Your task to perform on an android device: turn off notifications settings in the gmail app Image 0: 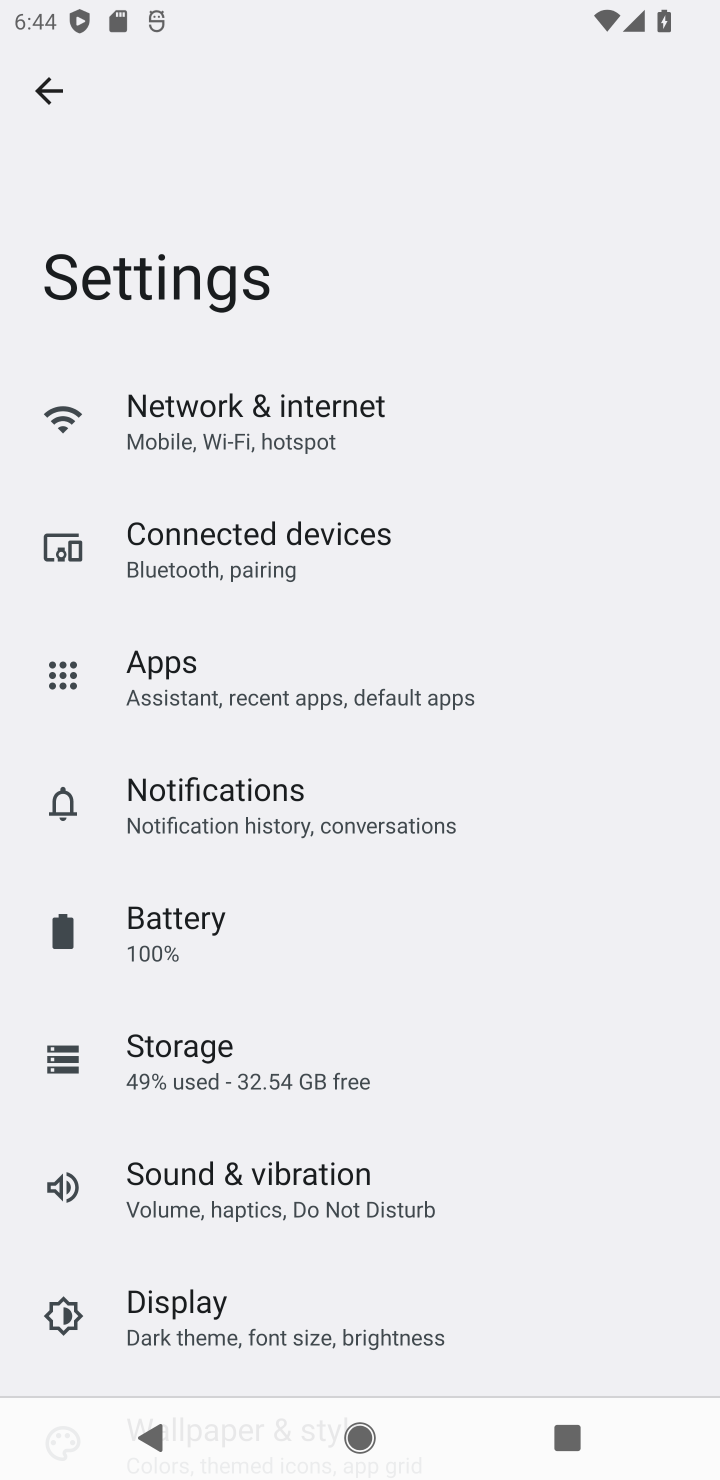
Step 0: press home button
Your task to perform on an android device: turn off notifications settings in the gmail app Image 1: 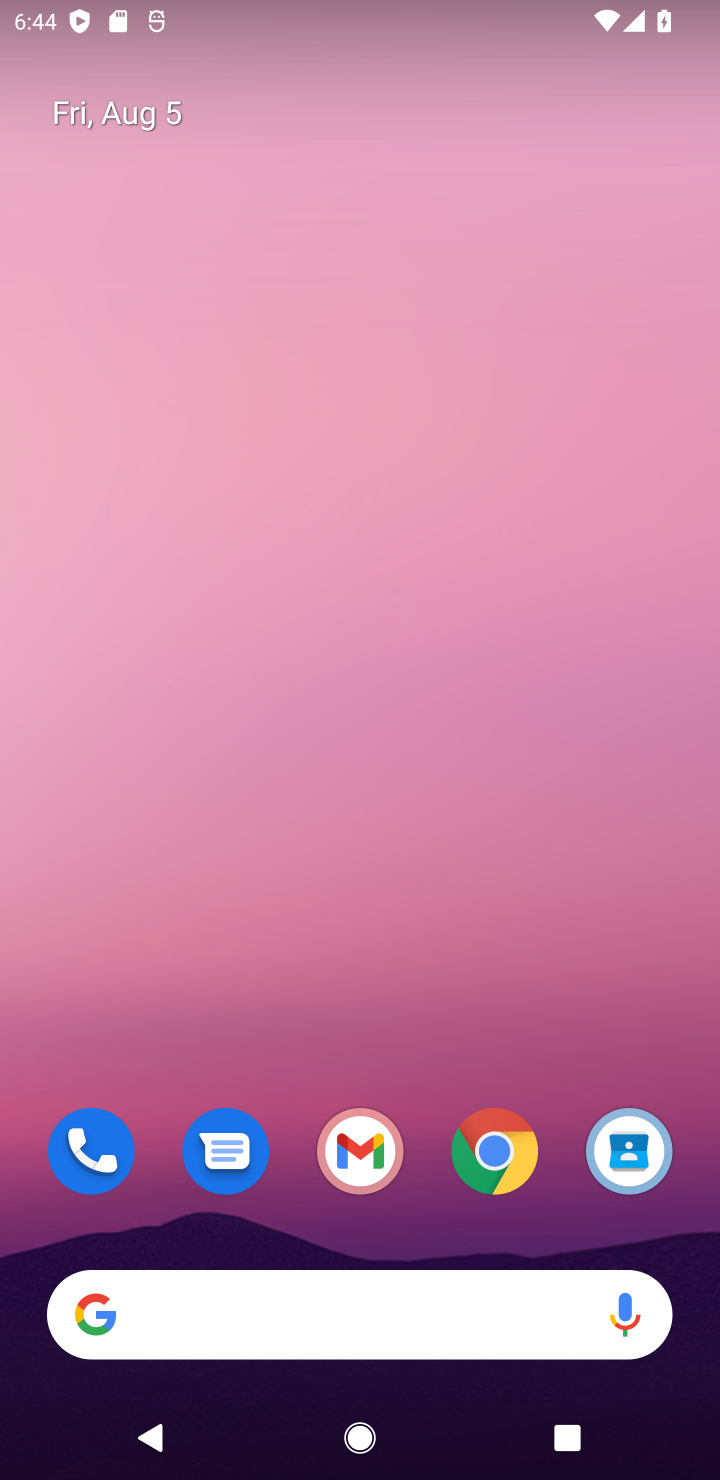
Step 1: click (370, 1186)
Your task to perform on an android device: turn off notifications settings in the gmail app Image 2: 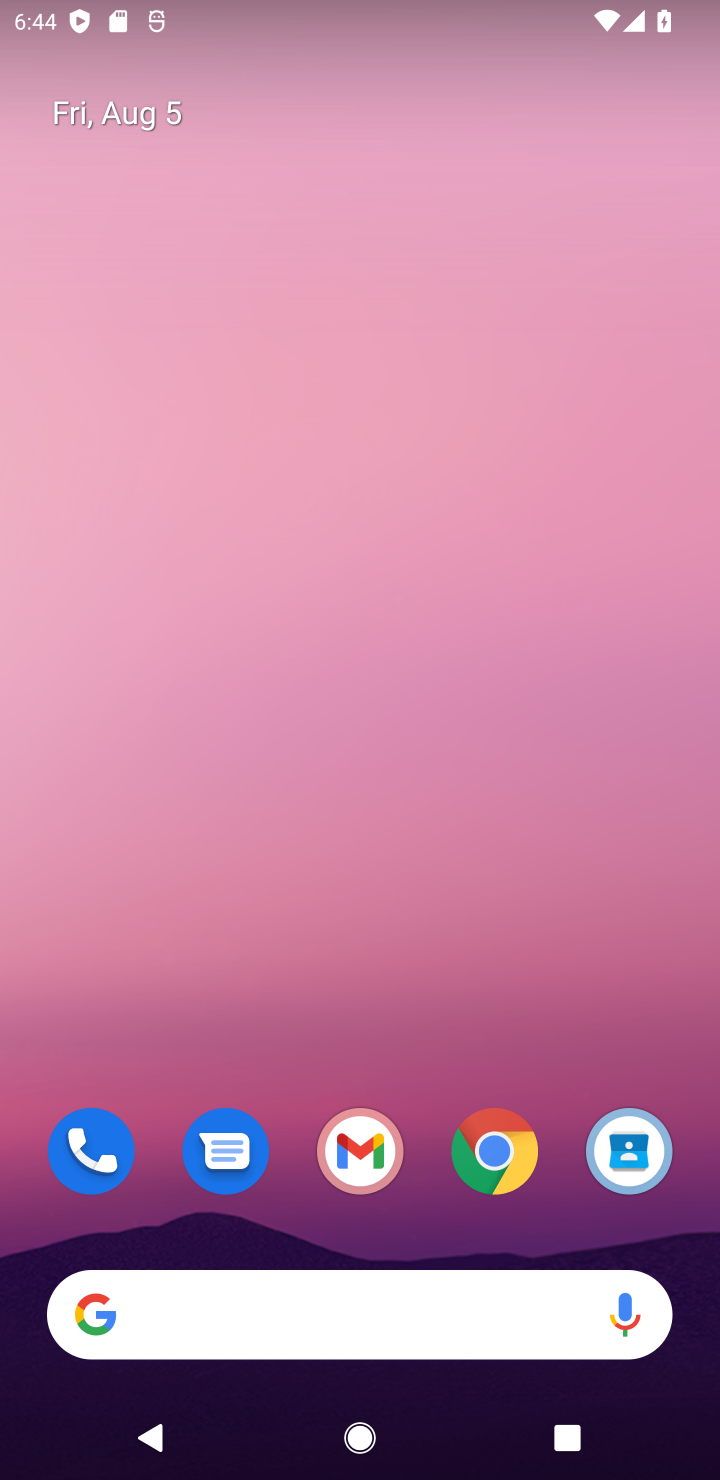
Step 2: click (370, 1186)
Your task to perform on an android device: turn off notifications settings in the gmail app Image 3: 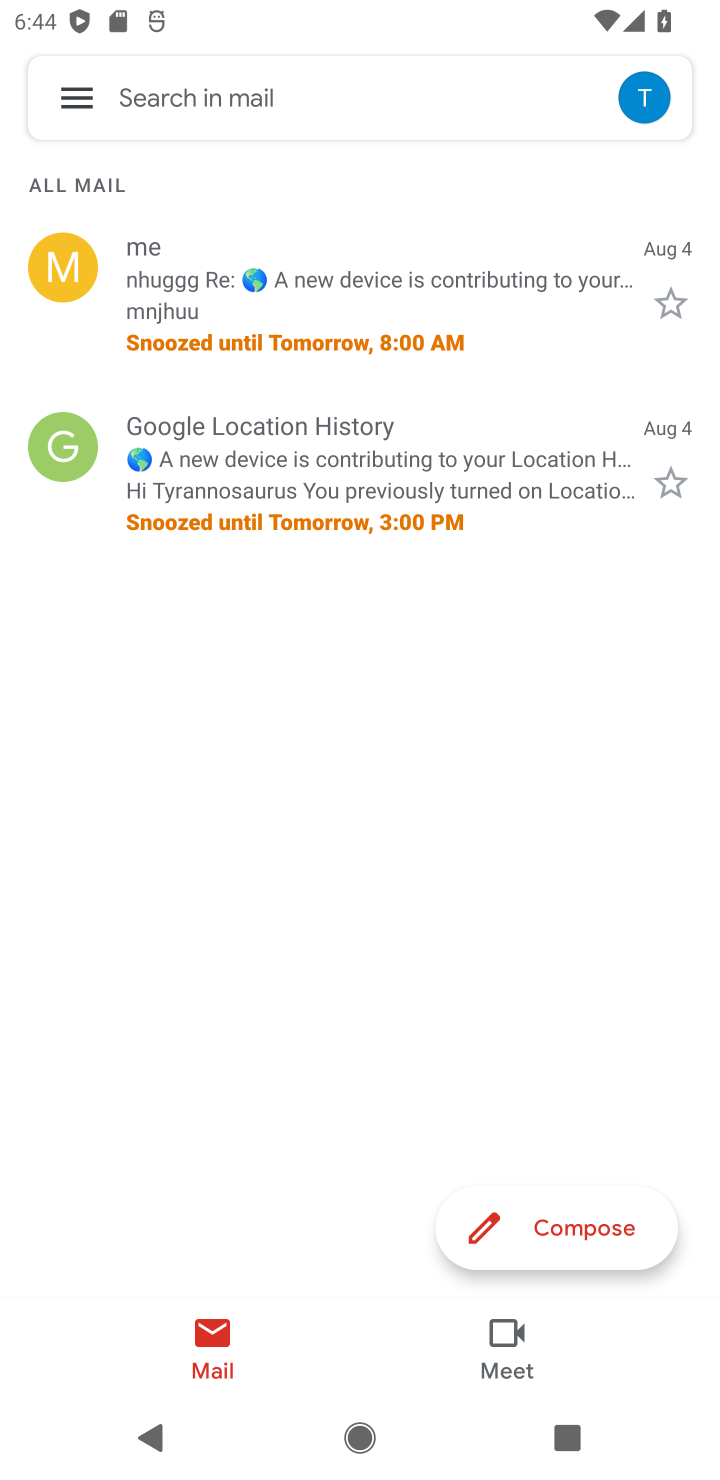
Step 3: click (80, 106)
Your task to perform on an android device: turn off notifications settings in the gmail app Image 4: 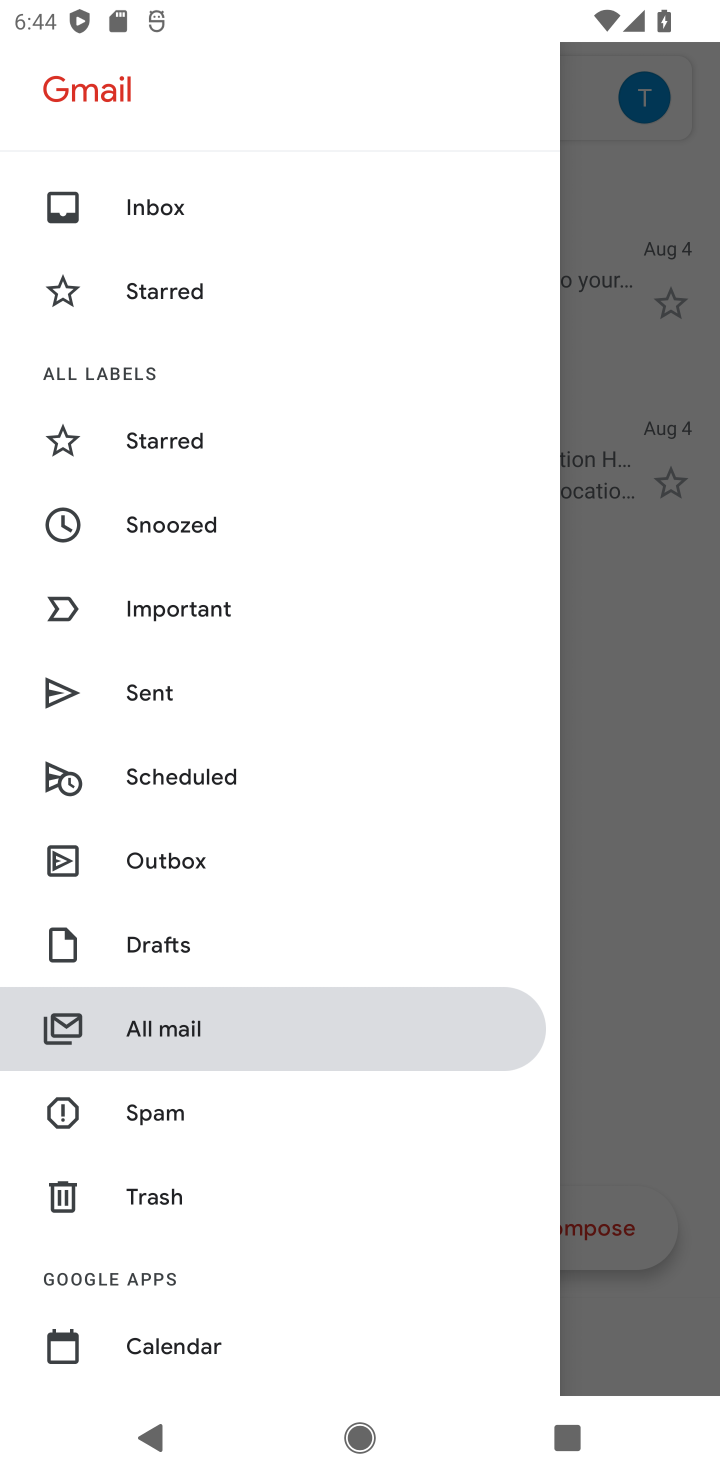
Step 4: drag from (504, 1254) to (337, 641)
Your task to perform on an android device: turn off notifications settings in the gmail app Image 5: 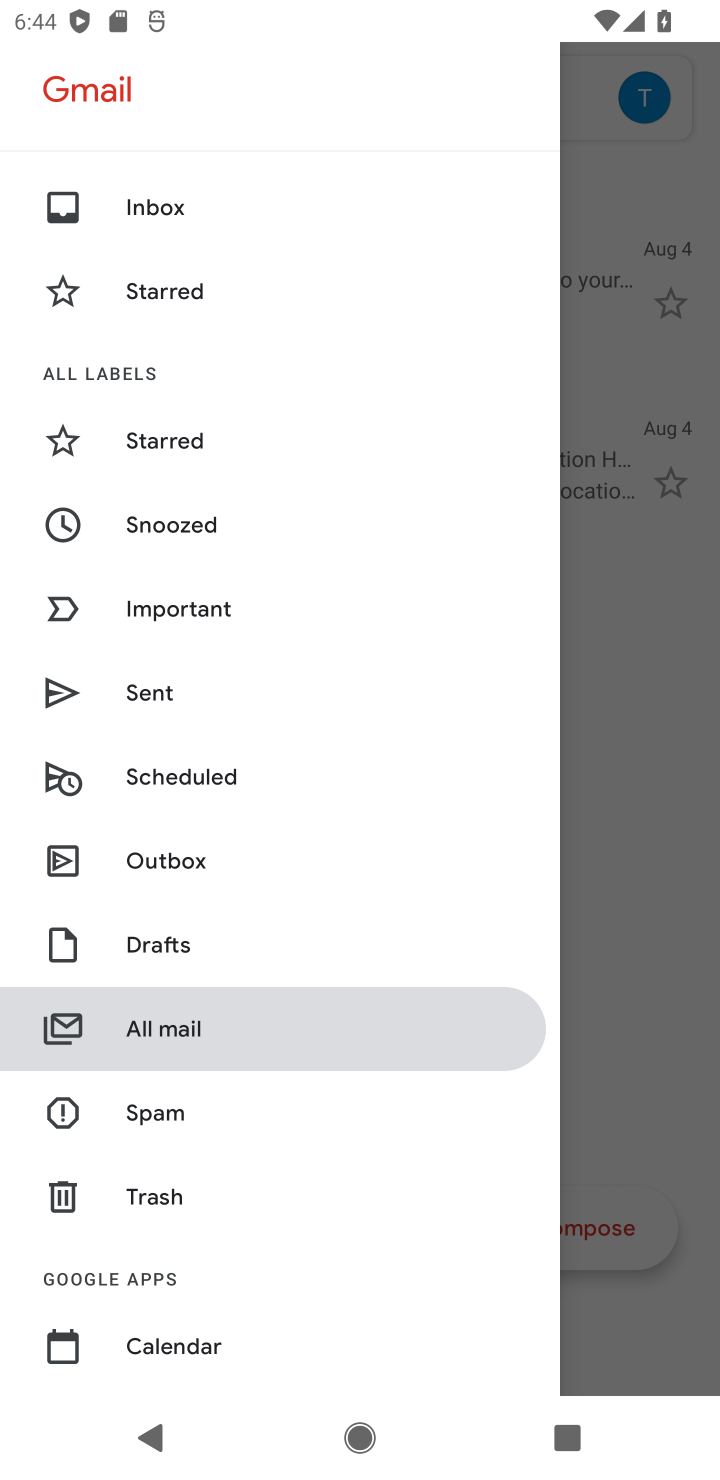
Step 5: drag from (348, 1237) to (258, 704)
Your task to perform on an android device: turn off notifications settings in the gmail app Image 6: 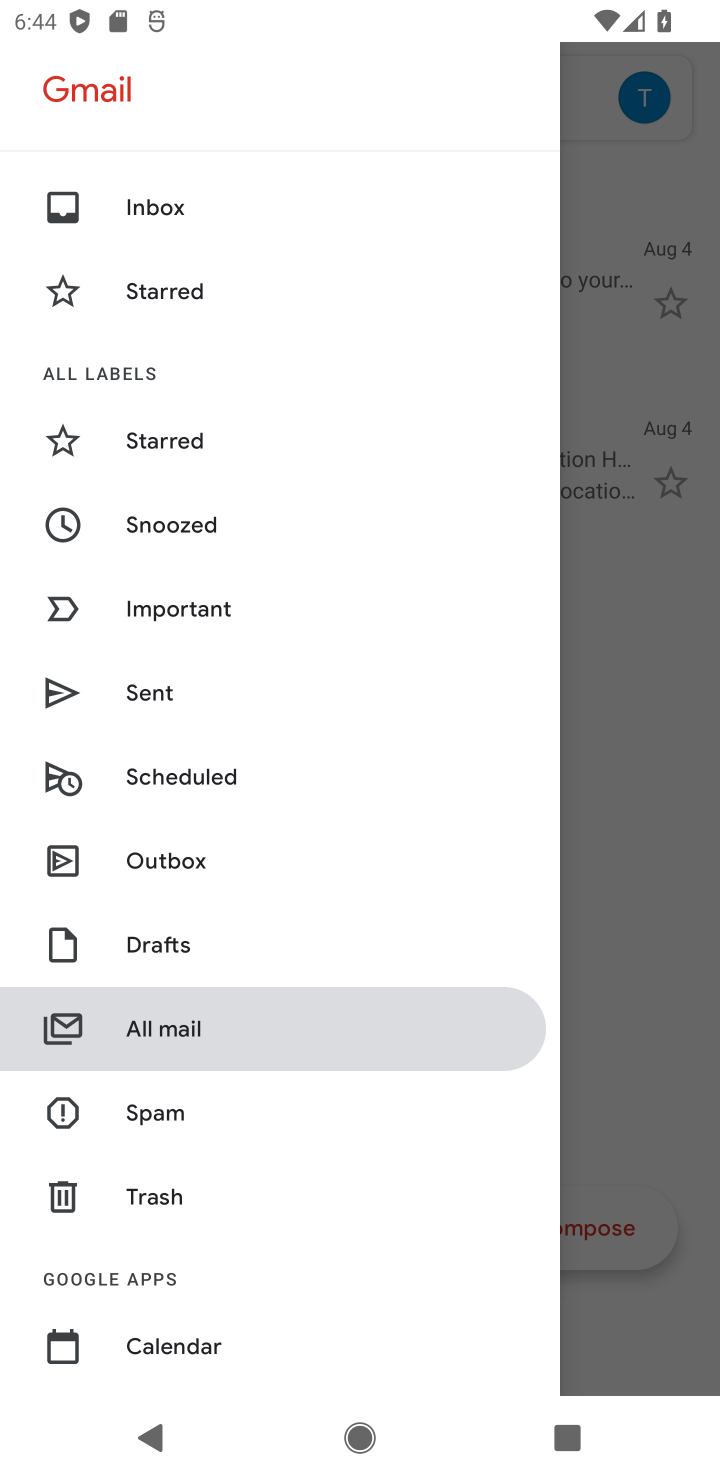
Step 6: drag from (192, 1312) to (234, 509)
Your task to perform on an android device: turn off notifications settings in the gmail app Image 7: 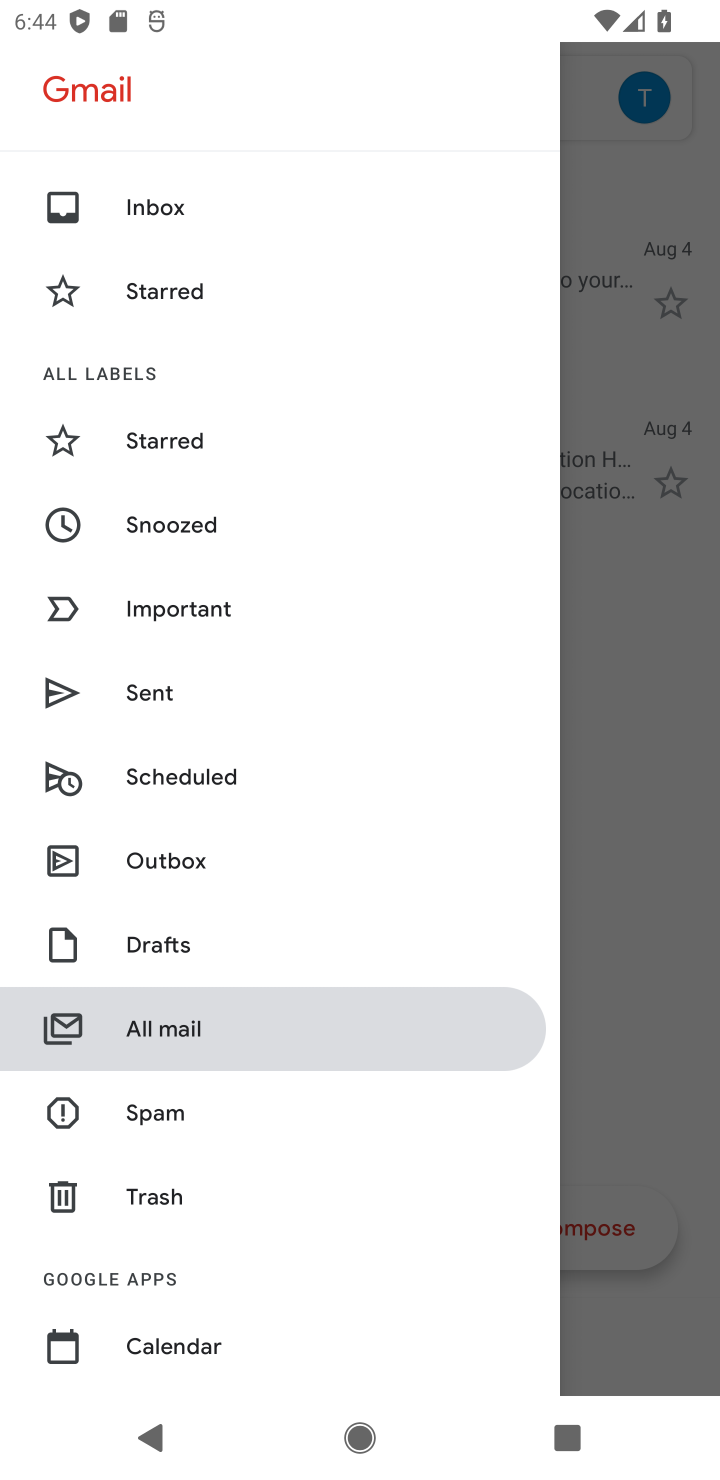
Step 7: drag from (320, 1278) to (641, 778)
Your task to perform on an android device: turn off notifications settings in the gmail app Image 8: 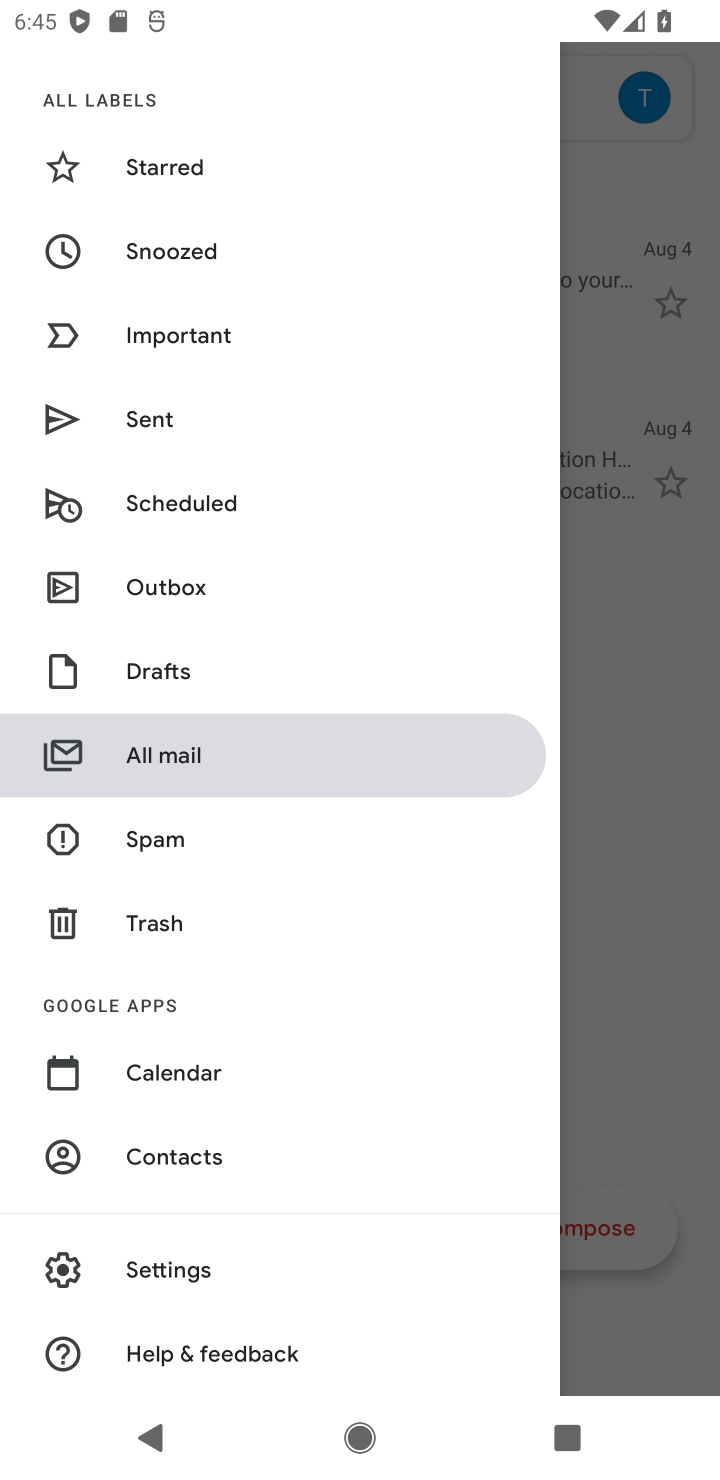
Step 8: click (132, 1267)
Your task to perform on an android device: turn off notifications settings in the gmail app Image 9: 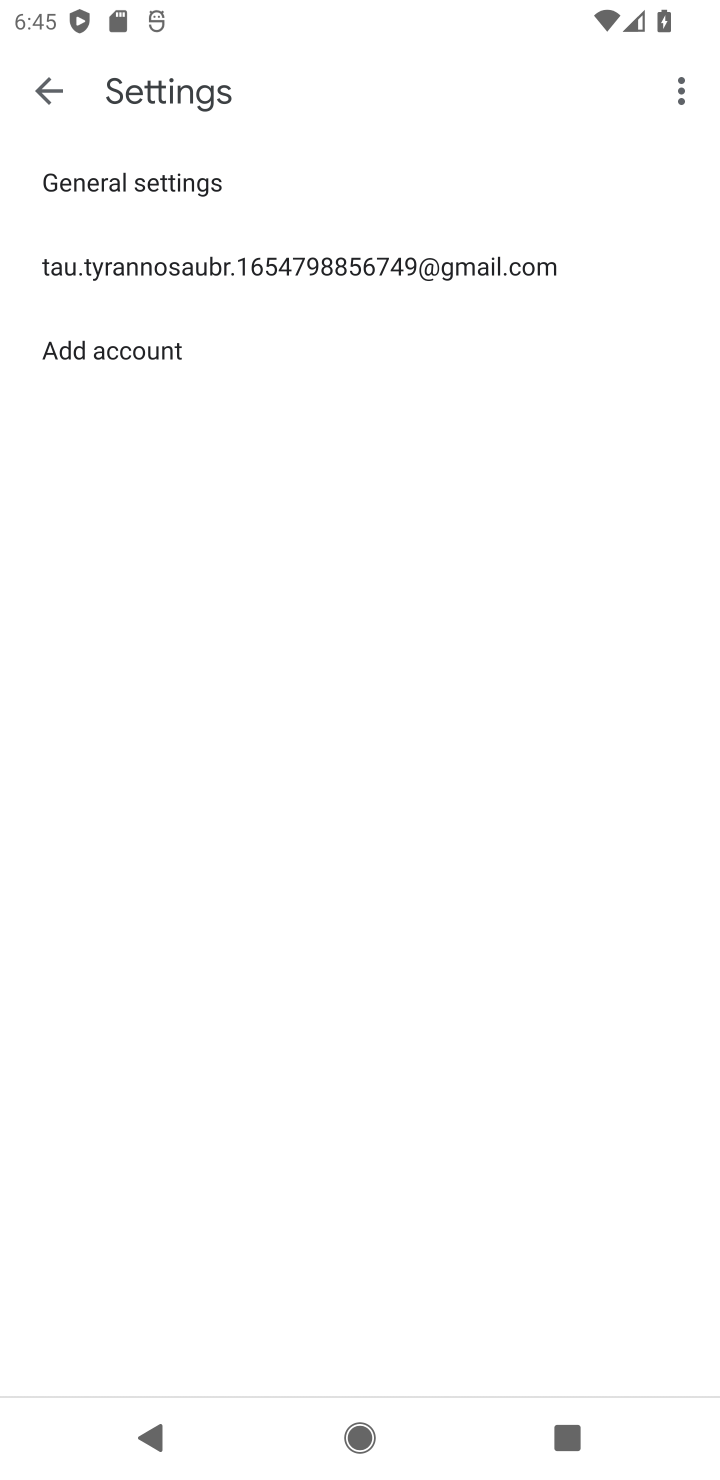
Step 9: click (178, 271)
Your task to perform on an android device: turn off notifications settings in the gmail app Image 10: 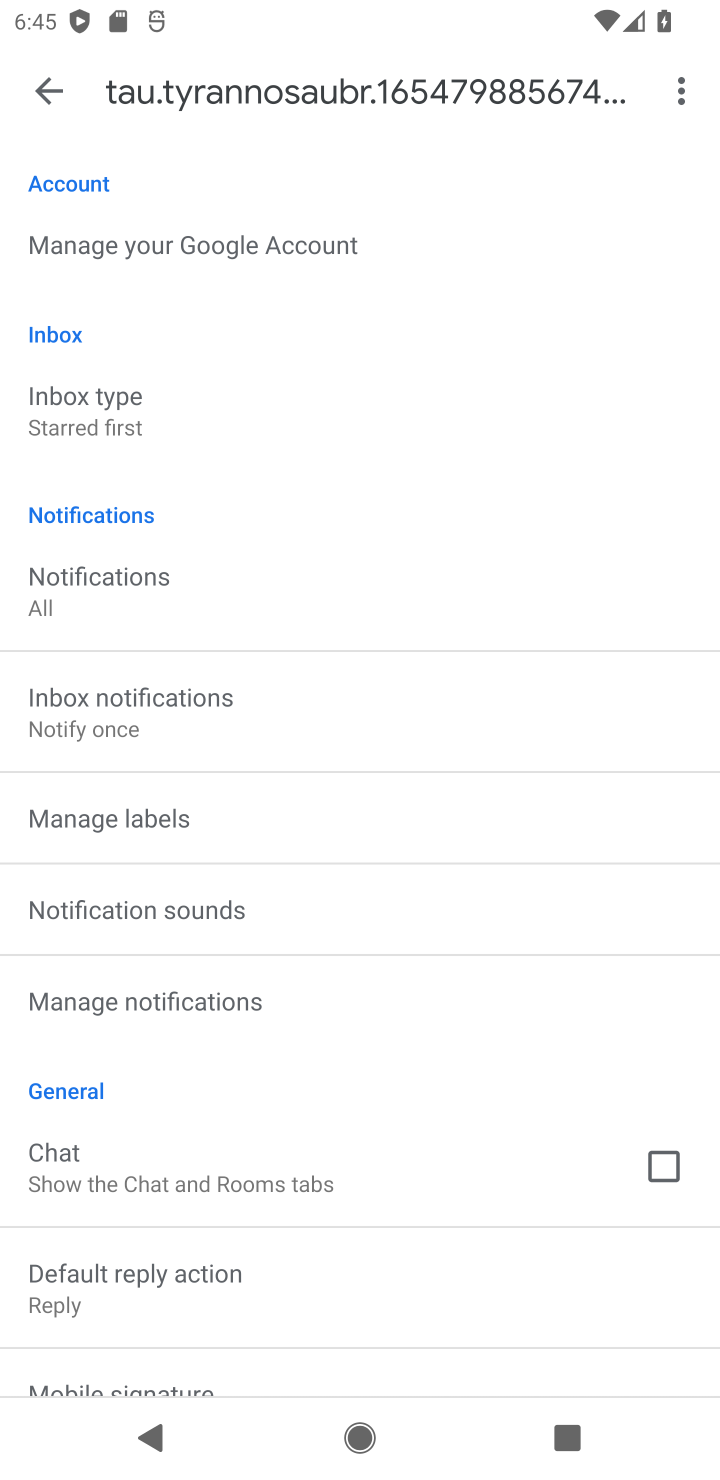
Step 10: click (270, 587)
Your task to perform on an android device: turn off notifications settings in the gmail app Image 11: 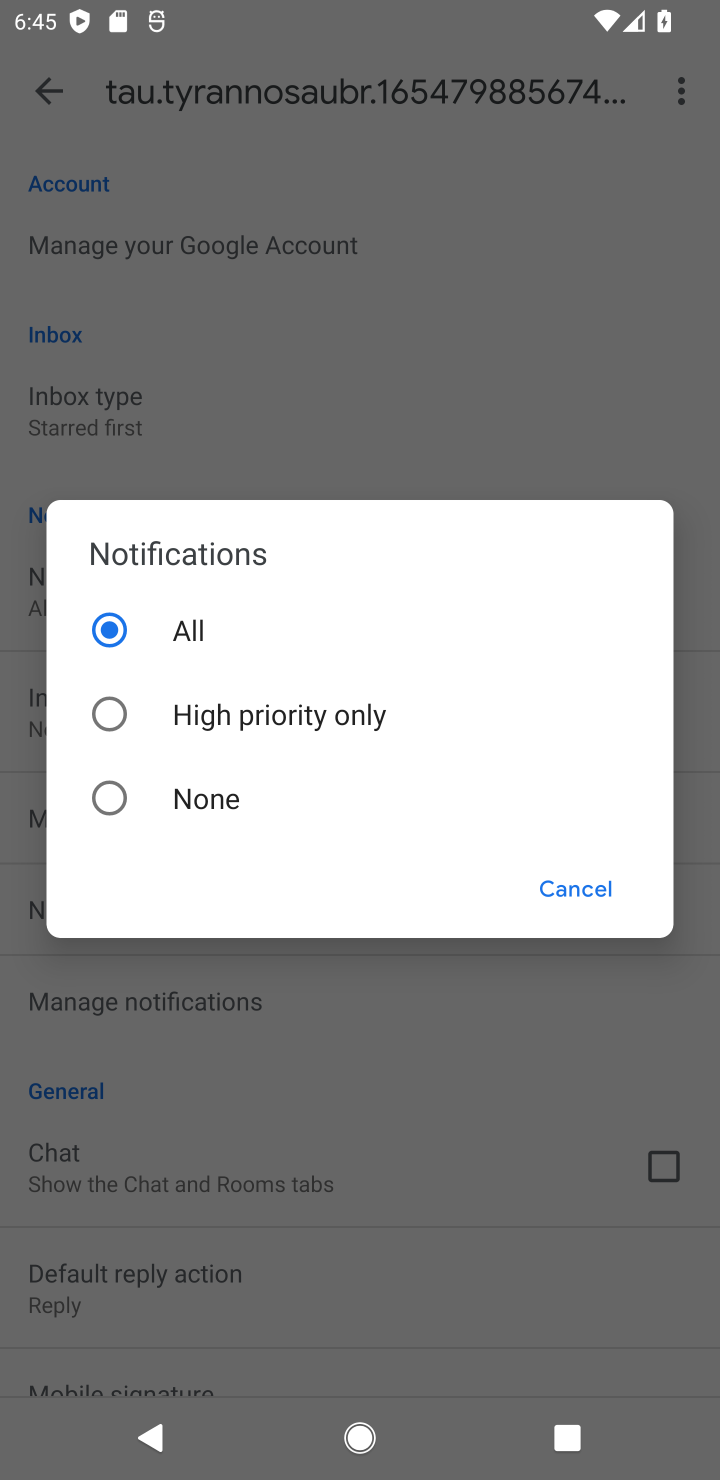
Step 11: click (203, 801)
Your task to perform on an android device: turn off notifications settings in the gmail app Image 12: 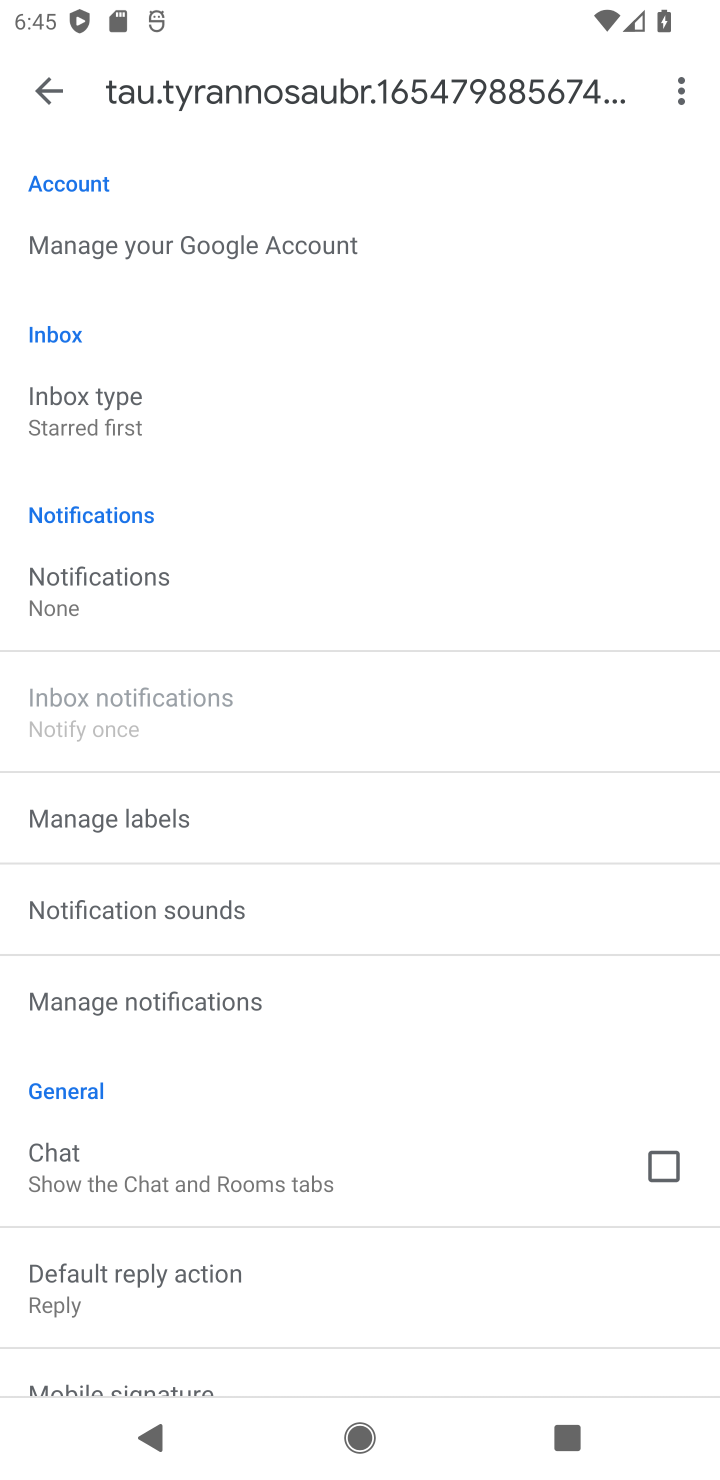
Step 12: task complete